Your task to perform on an android device: change the clock style Image 0: 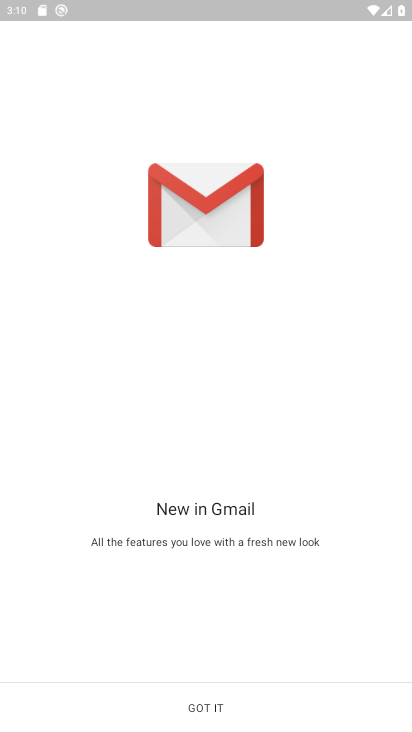
Step 0: press home button
Your task to perform on an android device: change the clock style Image 1: 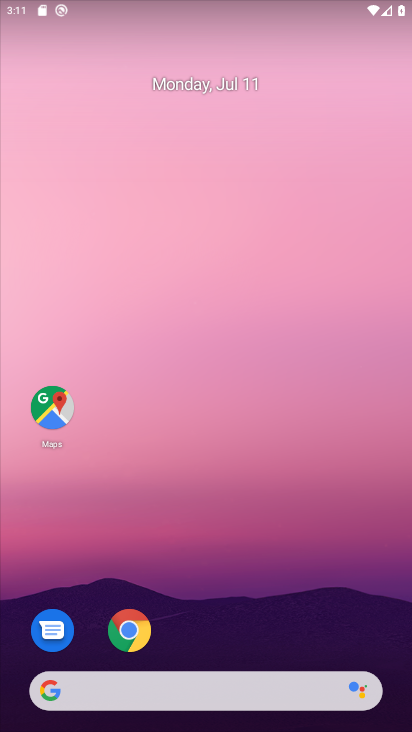
Step 1: drag from (300, 615) to (155, 88)
Your task to perform on an android device: change the clock style Image 2: 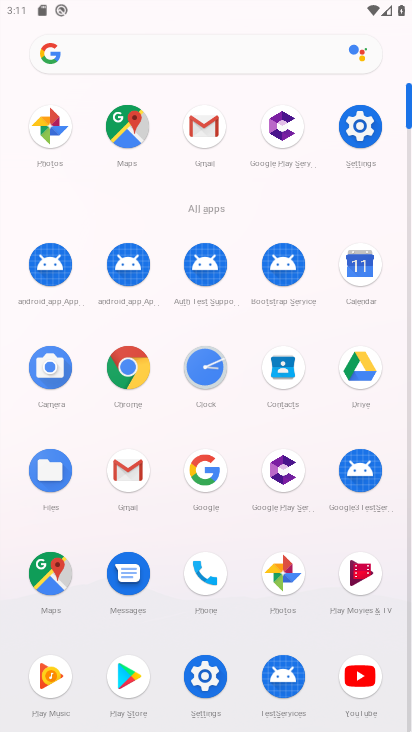
Step 2: click (209, 371)
Your task to perform on an android device: change the clock style Image 3: 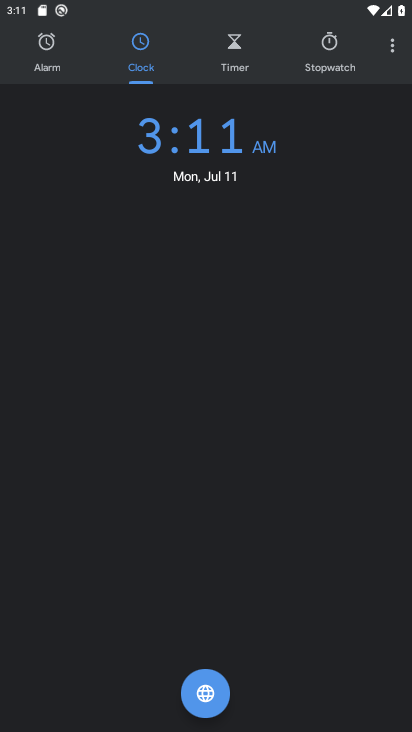
Step 3: click (405, 48)
Your task to perform on an android device: change the clock style Image 4: 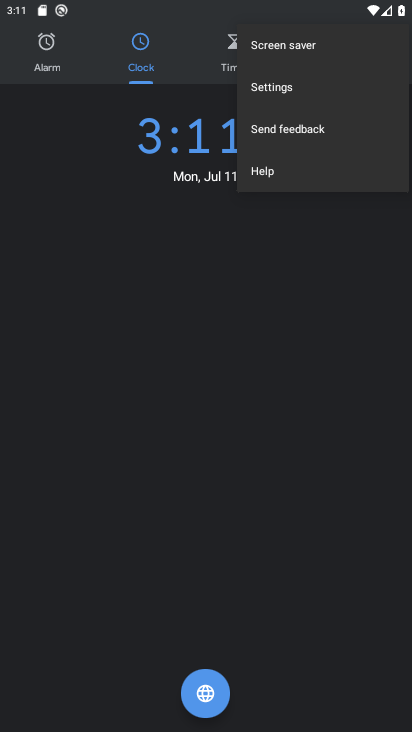
Step 4: click (337, 99)
Your task to perform on an android device: change the clock style Image 5: 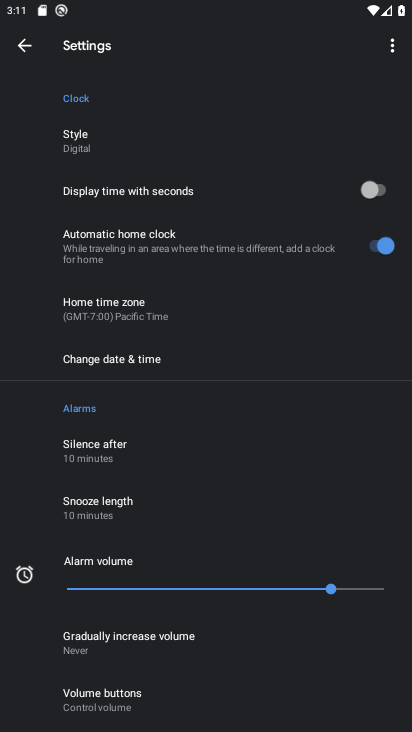
Step 5: click (206, 157)
Your task to perform on an android device: change the clock style Image 6: 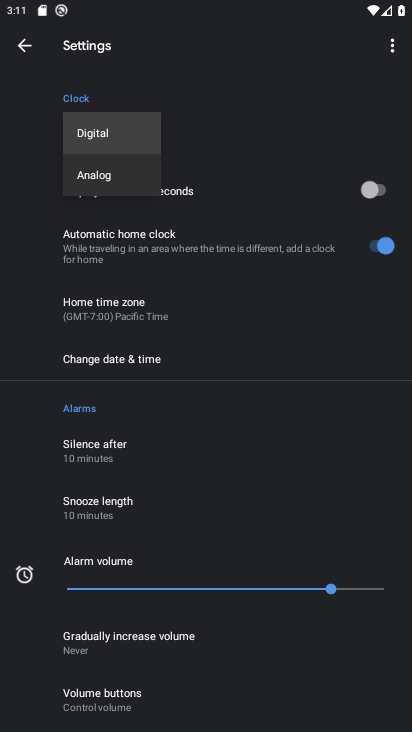
Step 6: click (125, 178)
Your task to perform on an android device: change the clock style Image 7: 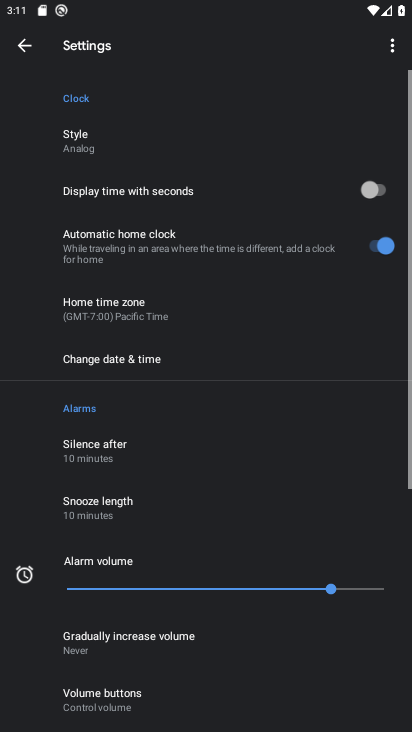
Step 7: task complete